Your task to perform on an android device: turn off picture-in-picture Image 0: 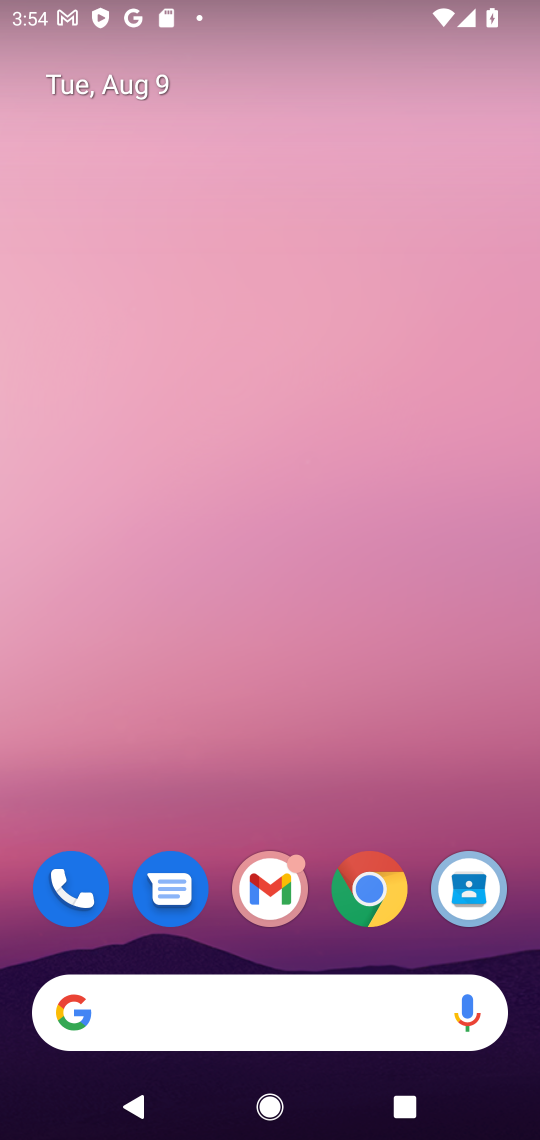
Step 0: click (379, 886)
Your task to perform on an android device: turn off picture-in-picture Image 1: 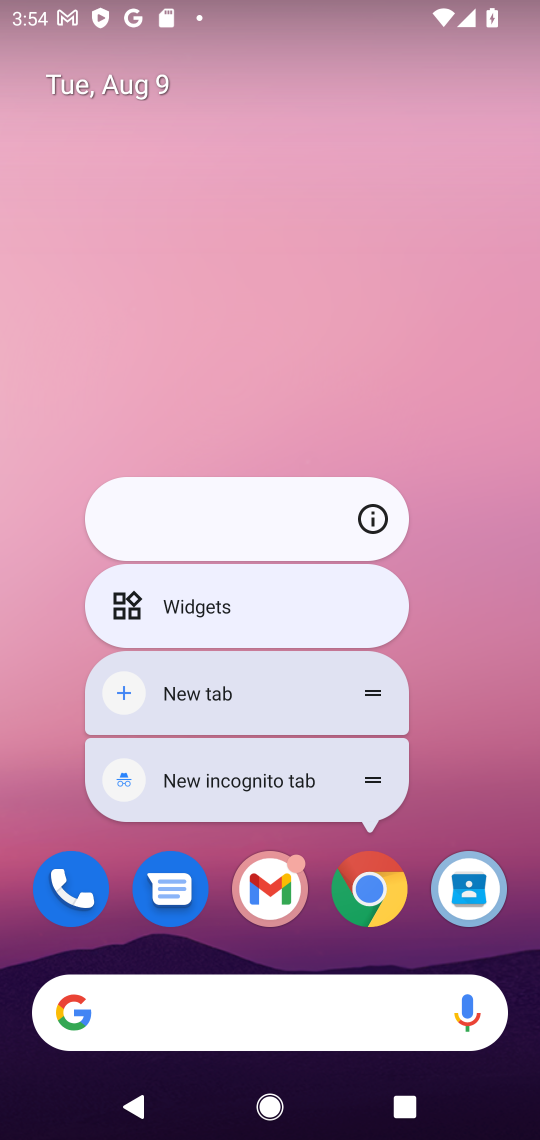
Step 1: click (375, 512)
Your task to perform on an android device: turn off picture-in-picture Image 2: 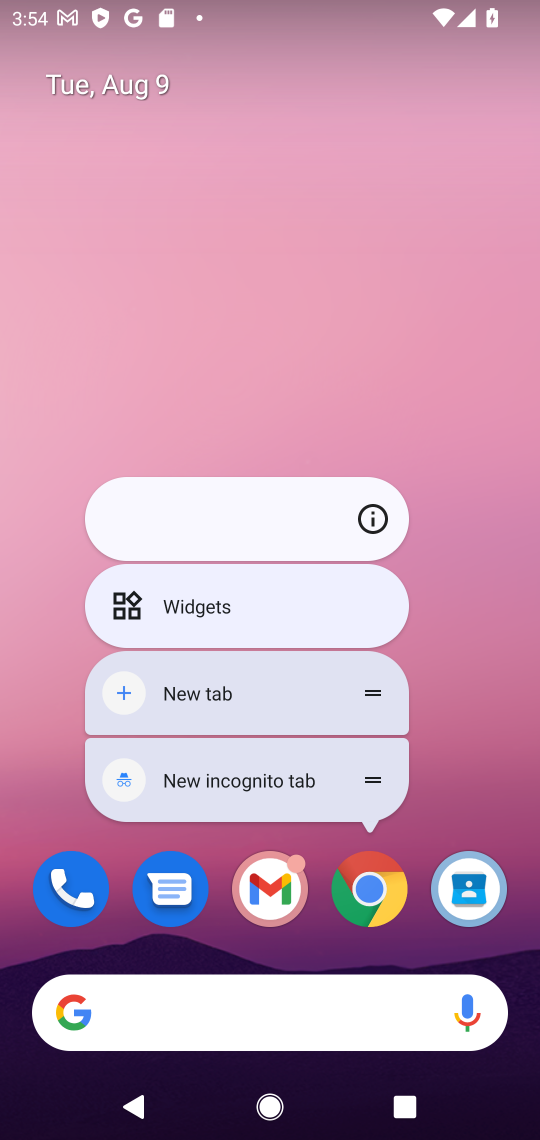
Step 2: click (375, 508)
Your task to perform on an android device: turn off picture-in-picture Image 3: 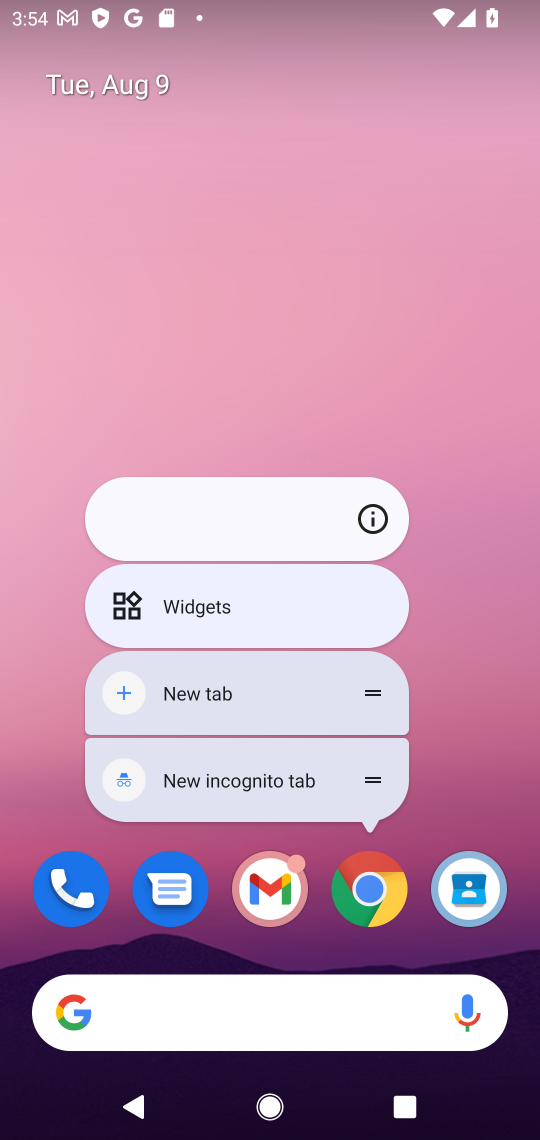
Step 3: click (375, 510)
Your task to perform on an android device: turn off picture-in-picture Image 4: 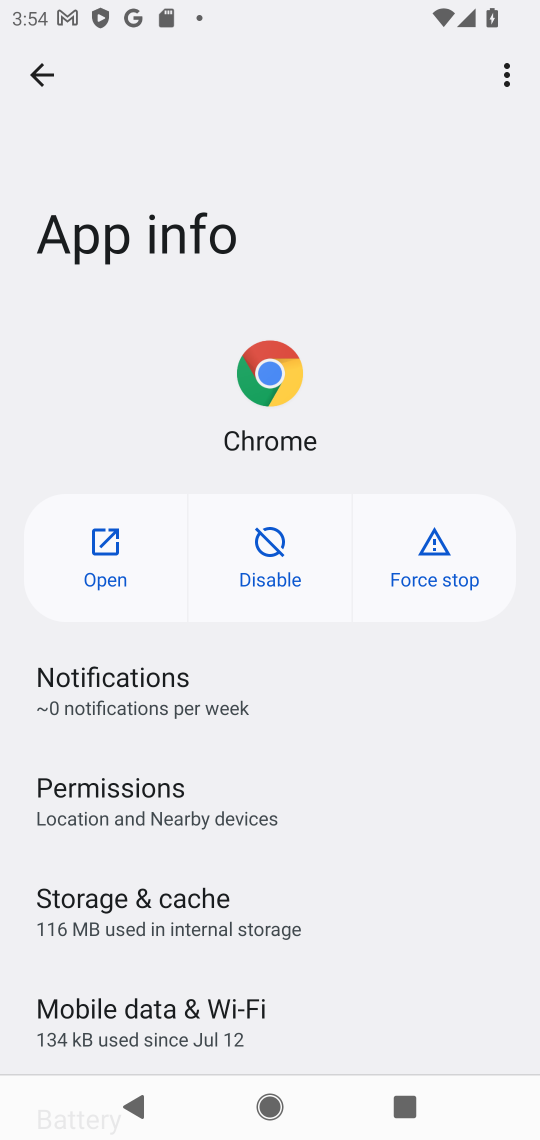
Step 4: drag from (311, 977) to (346, 8)
Your task to perform on an android device: turn off picture-in-picture Image 5: 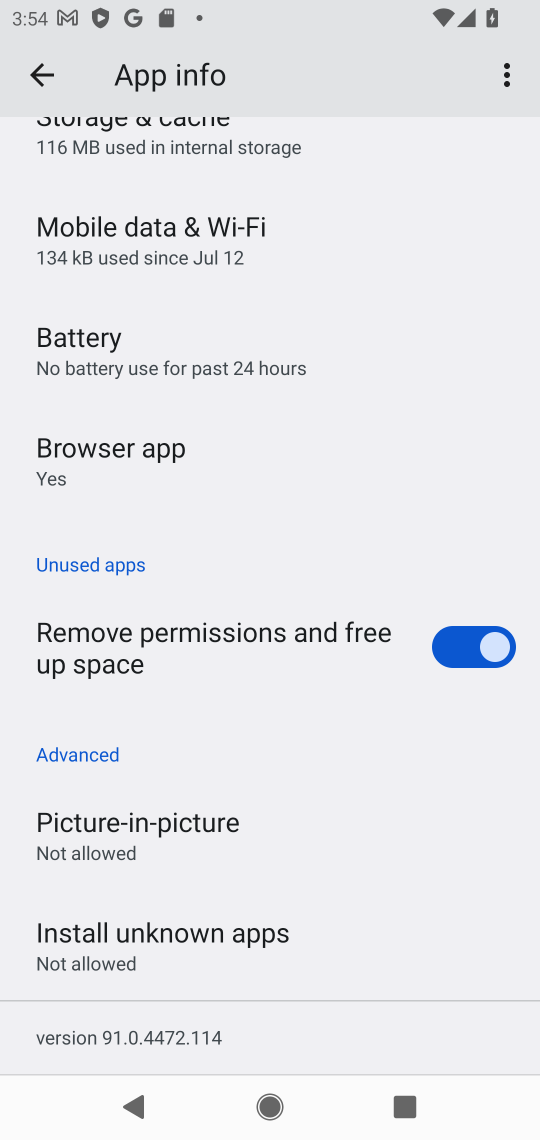
Step 5: click (234, 822)
Your task to perform on an android device: turn off picture-in-picture Image 6: 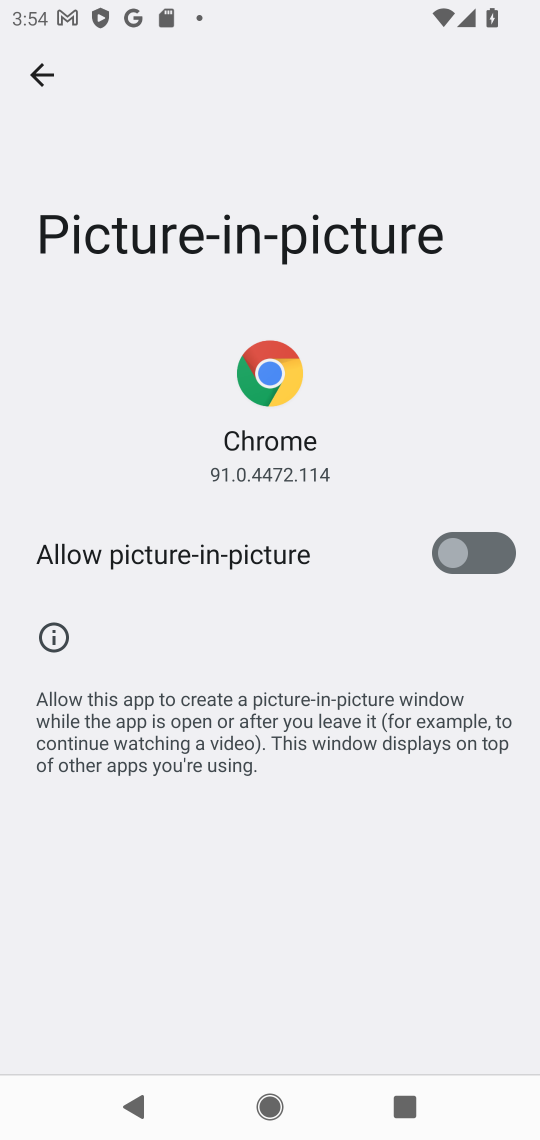
Step 6: task complete